Your task to perform on an android device: turn on bluetooth scan Image 0: 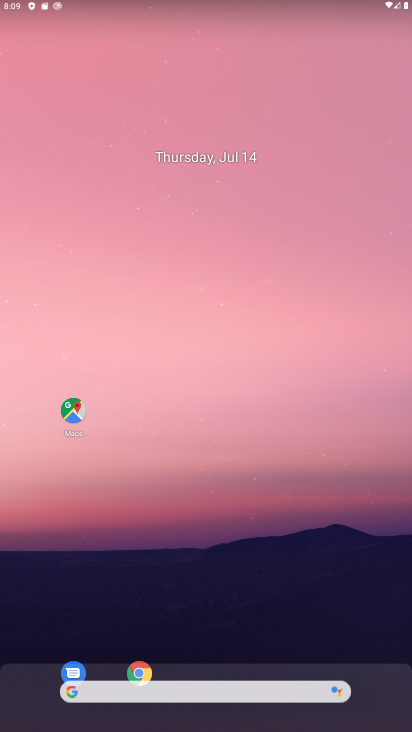
Step 0: drag from (214, 711) to (325, 163)
Your task to perform on an android device: turn on bluetooth scan Image 1: 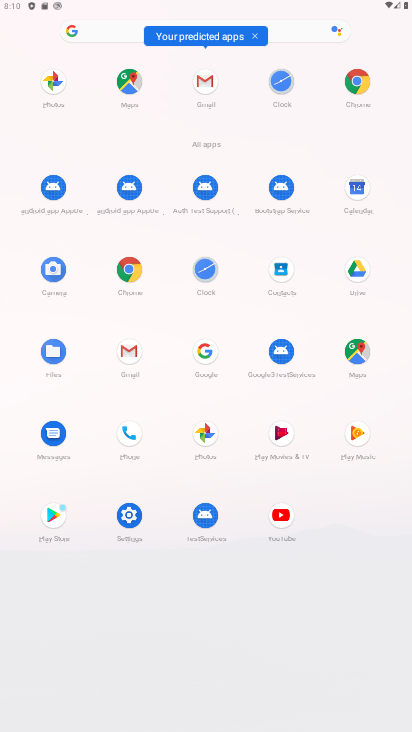
Step 1: click (129, 513)
Your task to perform on an android device: turn on bluetooth scan Image 2: 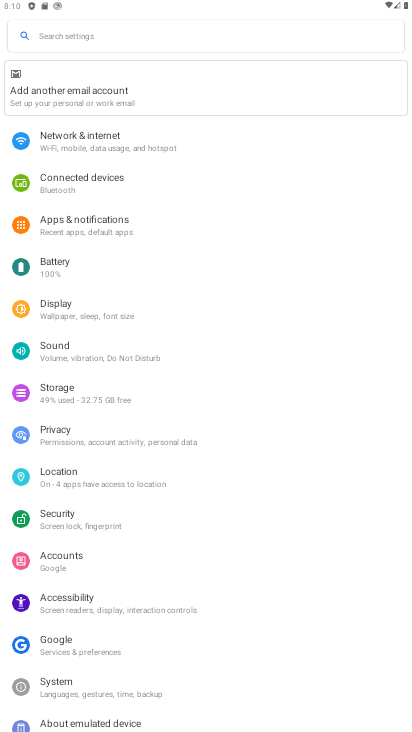
Step 2: click (70, 479)
Your task to perform on an android device: turn on bluetooth scan Image 3: 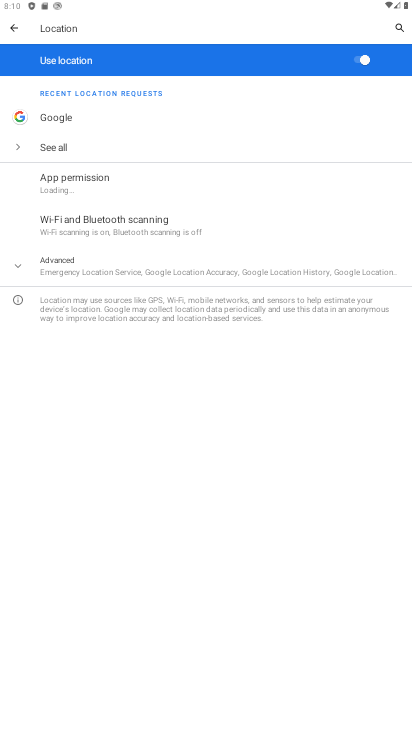
Step 3: click (130, 229)
Your task to perform on an android device: turn on bluetooth scan Image 4: 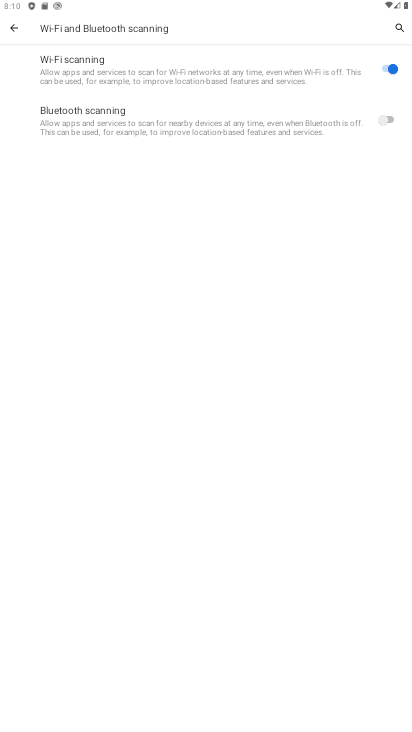
Step 4: click (384, 117)
Your task to perform on an android device: turn on bluetooth scan Image 5: 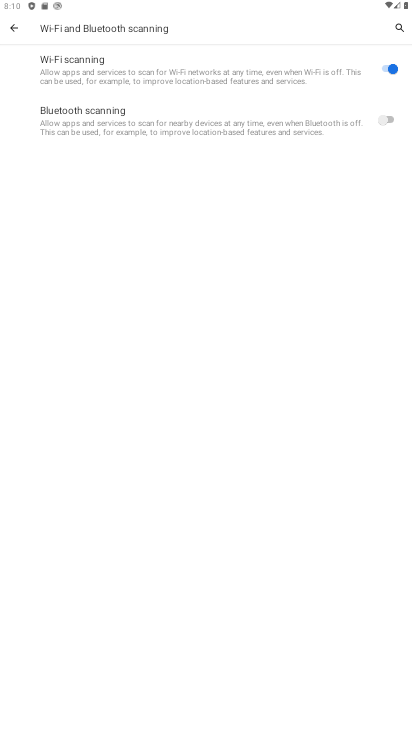
Step 5: click (384, 117)
Your task to perform on an android device: turn on bluetooth scan Image 6: 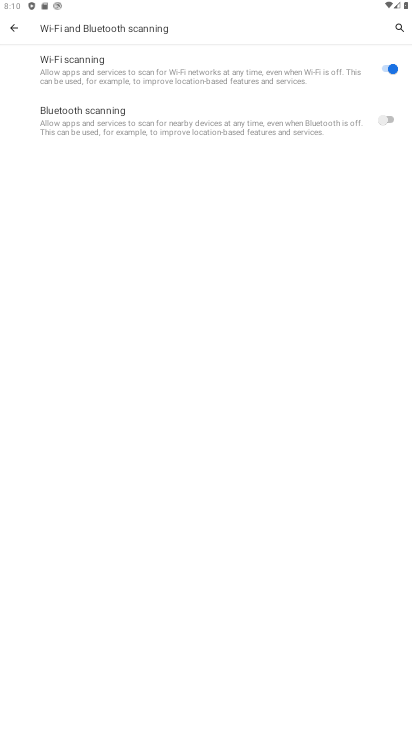
Step 6: click (384, 117)
Your task to perform on an android device: turn on bluetooth scan Image 7: 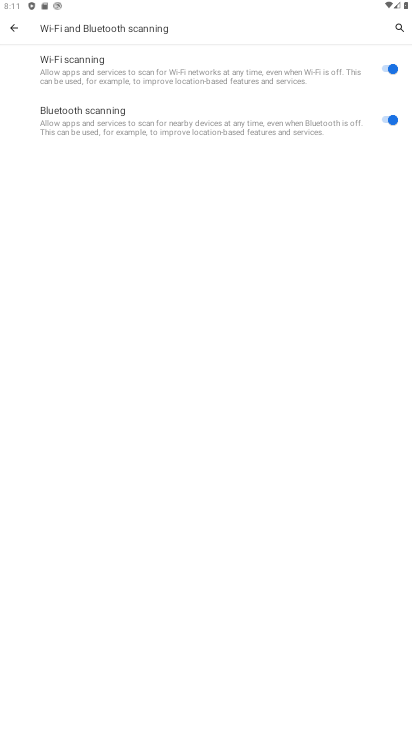
Step 7: task complete